Your task to perform on an android device: change your default location settings in chrome Image 0: 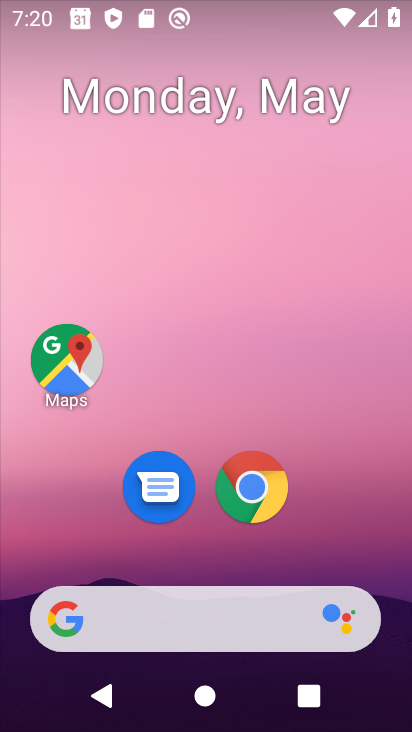
Step 0: click (248, 484)
Your task to perform on an android device: change your default location settings in chrome Image 1: 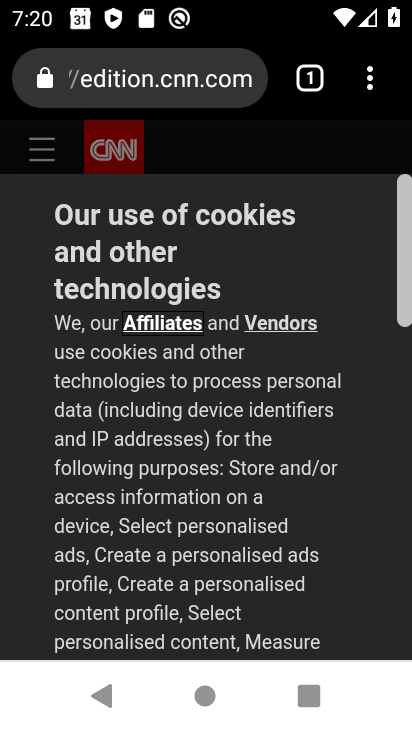
Step 1: click (364, 85)
Your task to perform on an android device: change your default location settings in chrome Image 2: 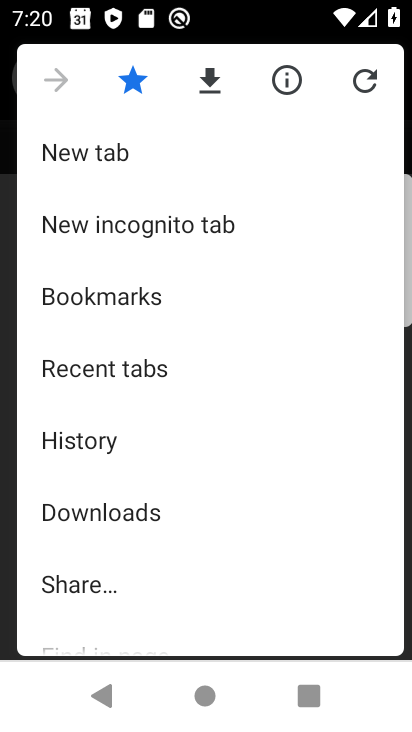
Step 2: drag from (200, 574) to (270, 192)
Your task to perform on an android device: change your default location settings in chrome Image 3: 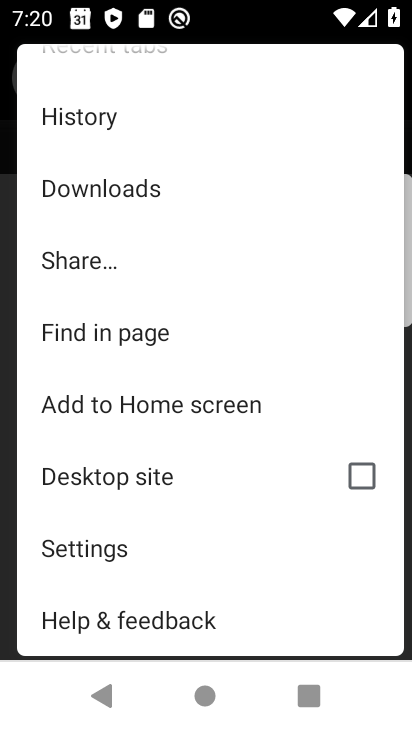
Step 3: click (111, 542)
Your task to perform on an android device: change your default location settings in chrome Image 4: 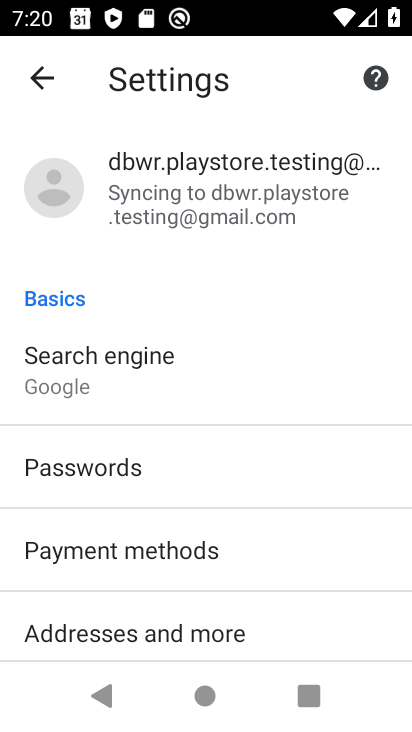
Step 4: drag from (169, 514) to (219, 224)
Your task to perform on an android device: change your default location settings in chrome Image 5: 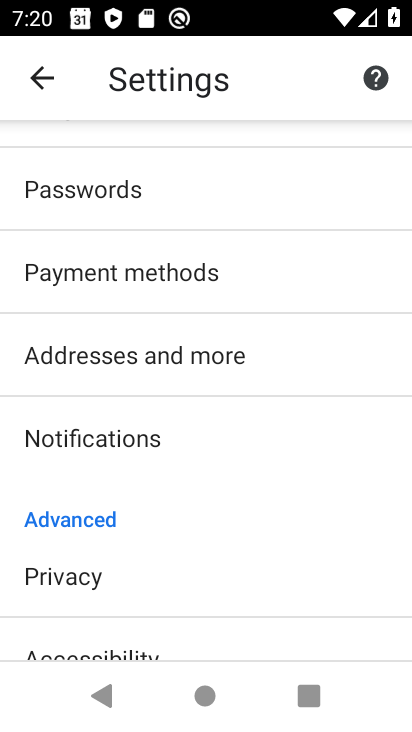
Step 5: drag from (96, 569) to (72, 271)
Your task to perform on an android device: change your default location settings in chrome Image 6: 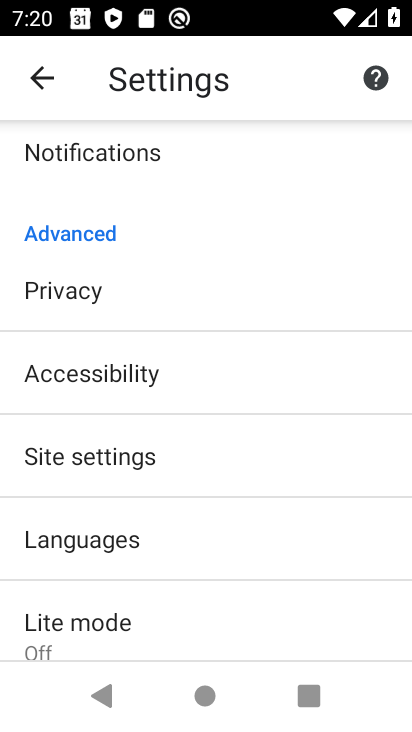
Step 6: drag from (143, 510) to (230, 289)
Your task to perform on an android device: change your default location settings in chrome Image 7: 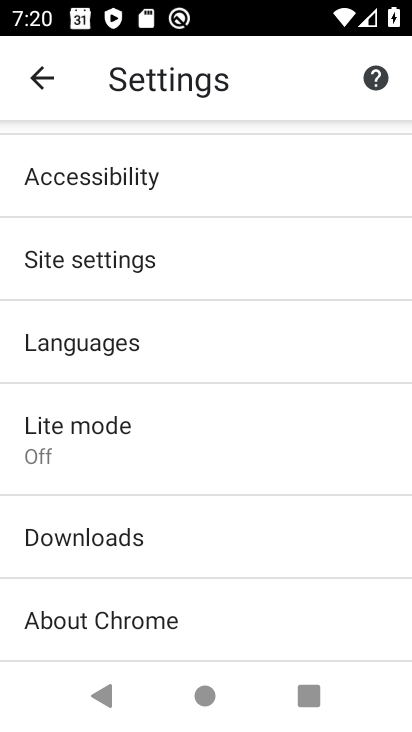
Step 7: click (71, 432)
Your task to perform on an android device: change your default location settings in chrome Image 8: 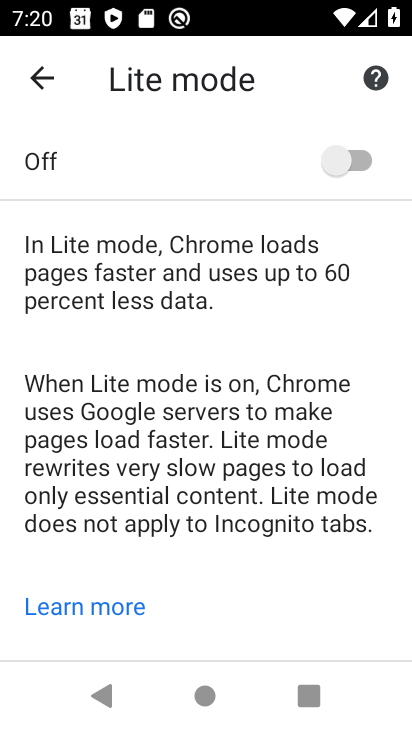
Step 8: click (41, 81)
Your task to perform on an android device: change your default location settings in chrome Image 9: 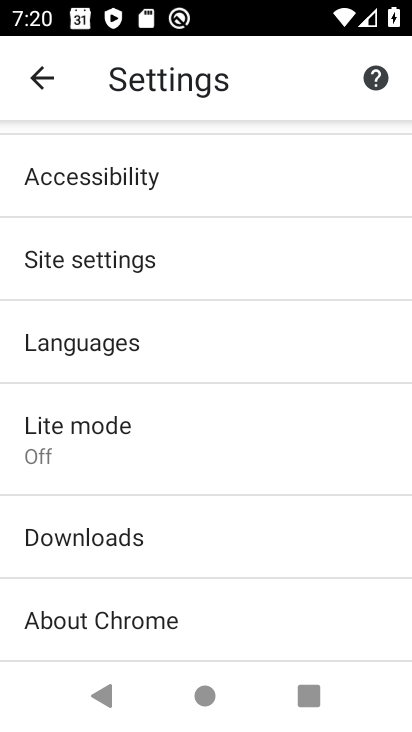
Step 9: click (103, 253)
Your task to perform on an android device: change your default location settings in chrome Image 10: 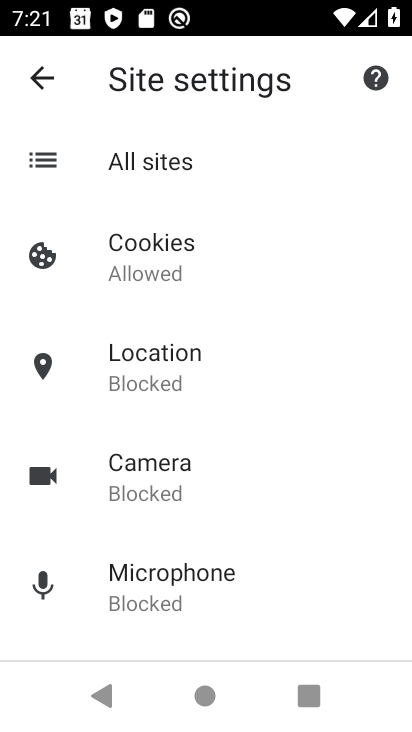
Step 10: click (137, 368)
Your task to perform on an android device: change your default location settings in chrome Image 11: 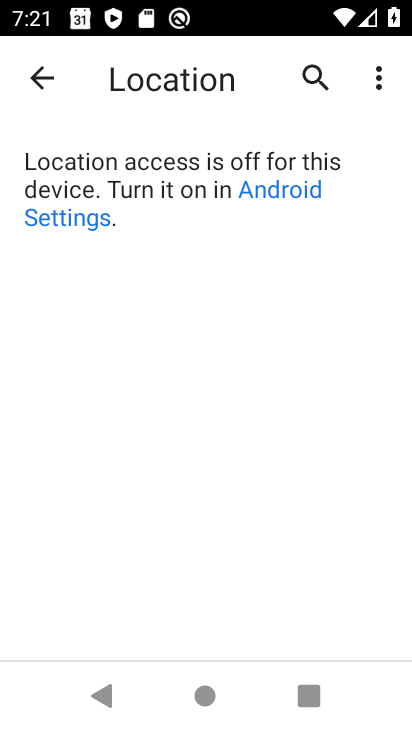
Step 11: task complete